Your task to perform on an android device: move a message to another label in the gmail app Image 0: 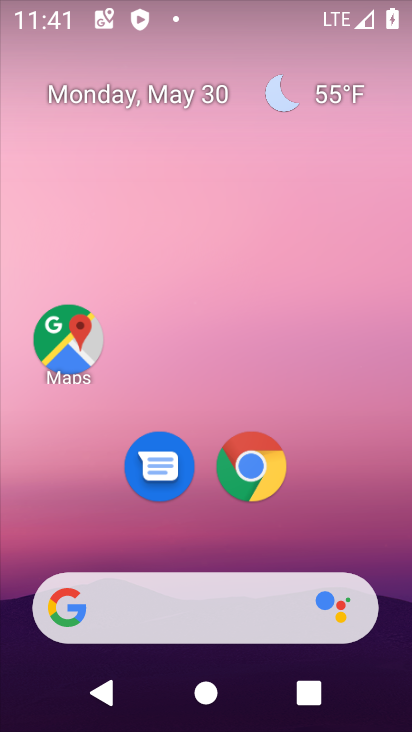
Step 0: drag from (349, 494) to (366, 0)
Your task to perform on an android device: move a message to another label in the gmail app Image 1: 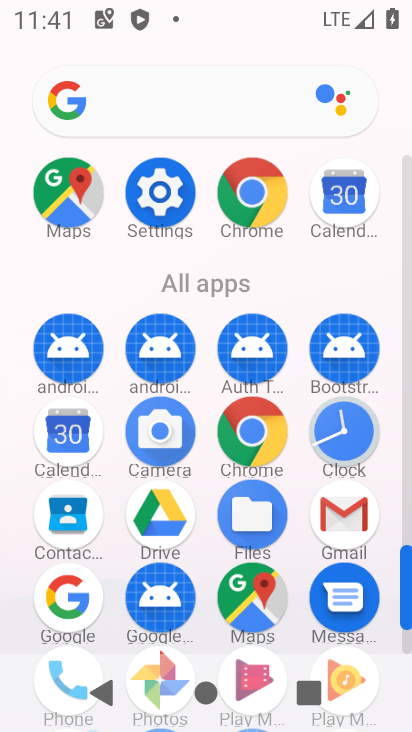
Step 1: click (348, 507)
Your task to perform on an android device: move a message to another label in the gmail app Image 2: 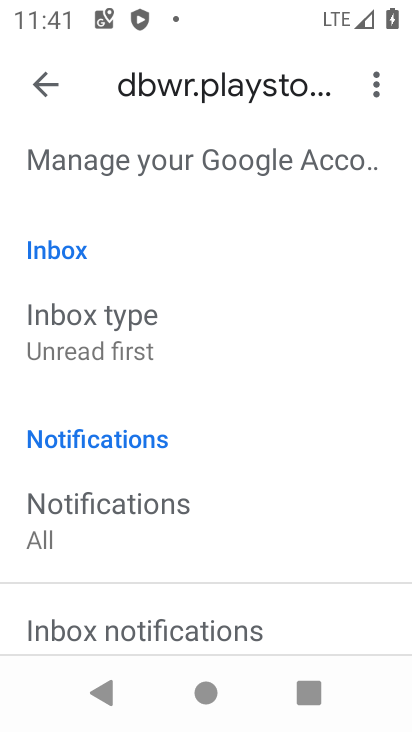
Step 2: click (64, 86)
Your task to perform on an android device: move a message to another label in the gmail app Image 3: 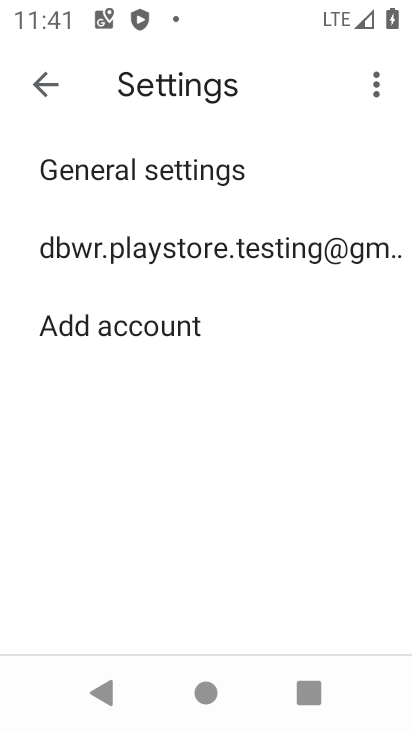
Step 3: click (63, 85)
Your task to perform on an android device: move a message to another label in the gmail app Image 4: 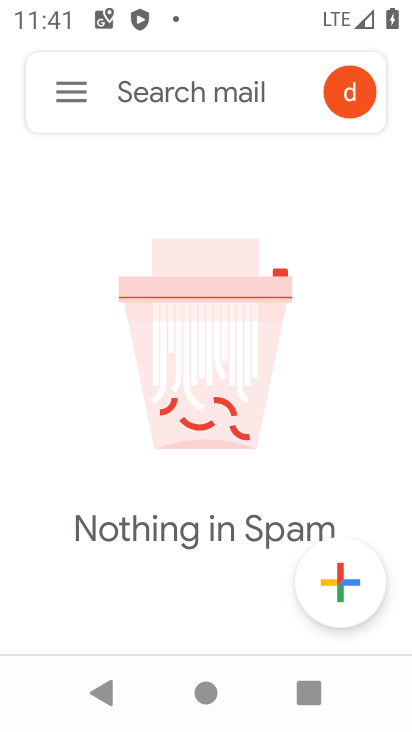
Step 4: click (63, 85)
Your task to perform on an android device: move a message to another label in the gmail app Image 5: 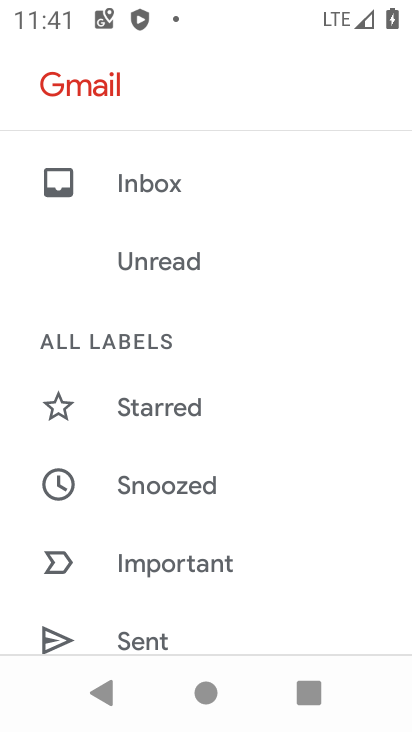
Step 5: drag from (144, 575) to (191, 184)
Your task to perform on an android device: move a message to another label in the gmail app Image 6: 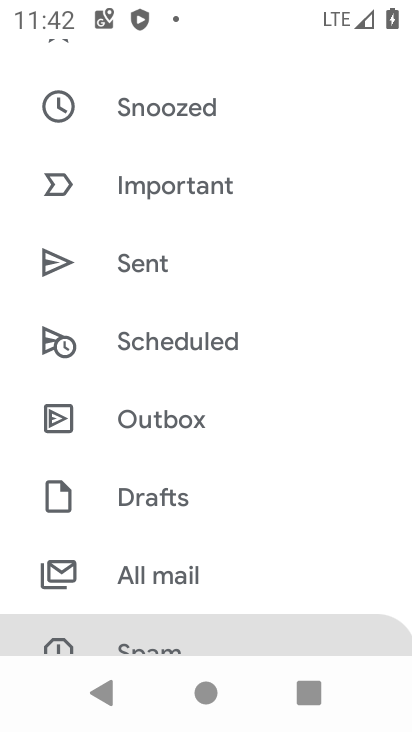
Step 6: drag from (221, 433) to (232, 279)
Your task to perform on an android device: move a message to another label in the gmail app Image 7: 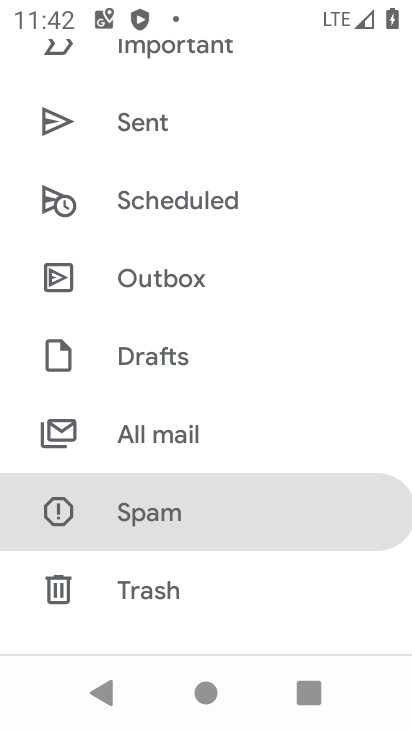
Step 7: click (202, 442)
Your task to perform on an android device: move a message to another label in the gmail app Image 8: 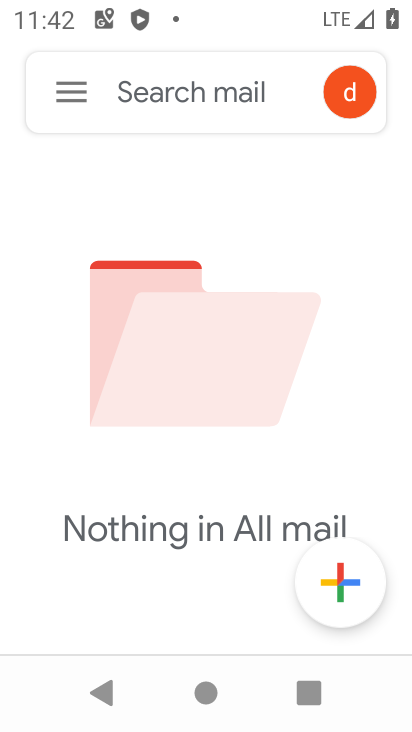
Step 8: task complete